Your task to perform on an android device: Empty the shopping cart on ebay. Search for razer nari on ebay, select the first entry, add it to the cart, then select checkout. Image 0: 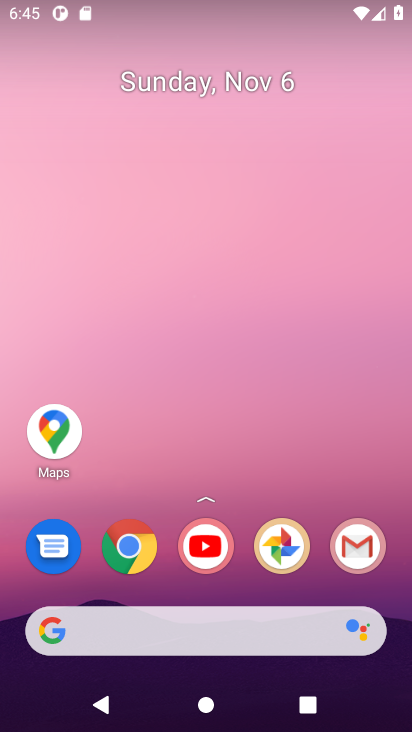
Step 0: click (126, 556)
Your task to perform on an android device: Empty the shopping cart on ebay. Search for razer nari on ebay, select the first entry, add it to the cart, then select checkout. Image 1: 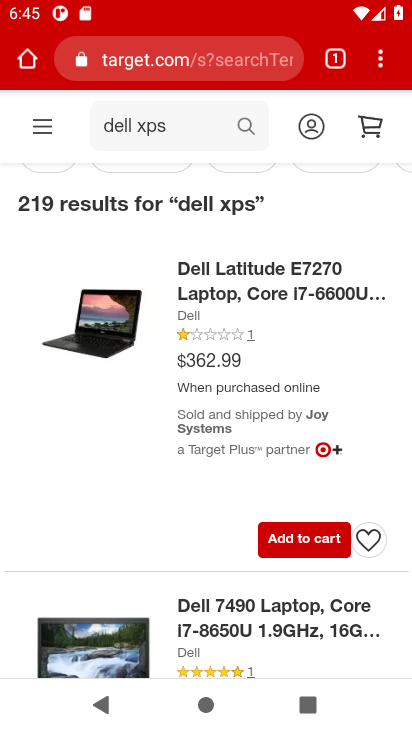
Step 1: click (165, 65)
Your task to perform on an android device: Empty the shopping cart on ebay. Search for razer nari on ebay, select the first entry, add it to the cart, then select checkout. Image 2: 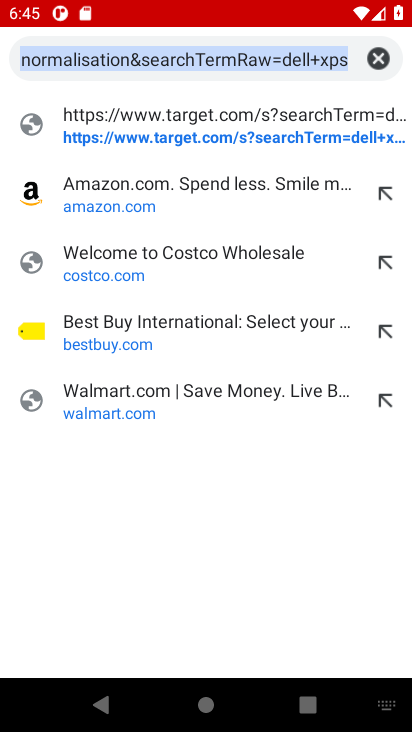
Step 2: type "ebay.com"
Your task to perform on an android device: Empty the shopping cart on ebay. Search for razer nari on ebay, select the first entry, add it to the cart, then select checkout. Image 3: 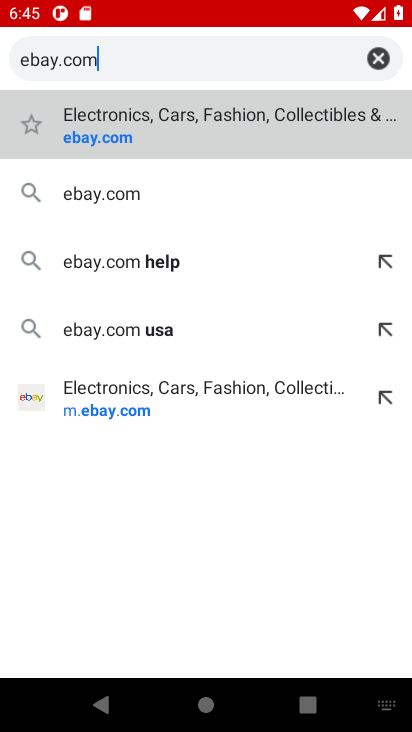
Step 3: click (90, 143)
Your task to perform on an android device: Empty the shopping cart on ebay. Search for razer nari on ebay, select the first entry, add it to the cart, then select checkout. Image 4: 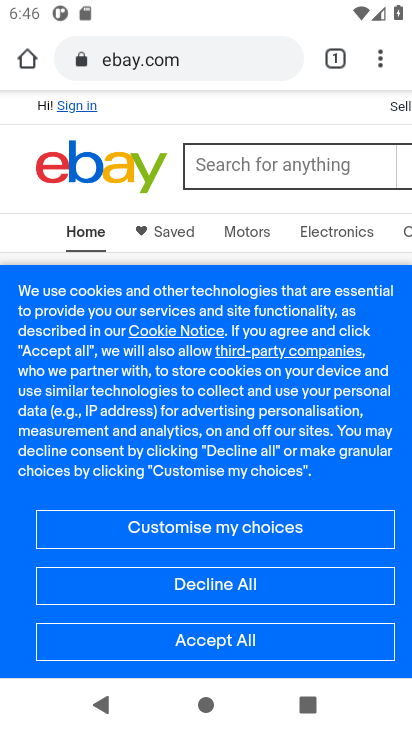
Step 4: drag from (144, 333) to (184, 160)
Your task to perform on an android device: Empty the shopping cart on ebay. Search for razer nari on ebay, select the first entry, add it to the cart, then select checkout. Image 5: 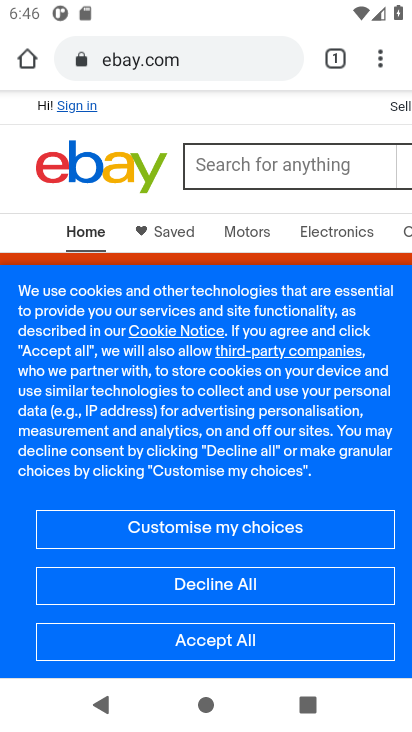
Step 5: click (212, 586)
Your task to perform on an android device: Empty the shopping cart on ebay. Search for razer nari on ebay, select the first entry, add it to the cart, then select checkout. Image 6: 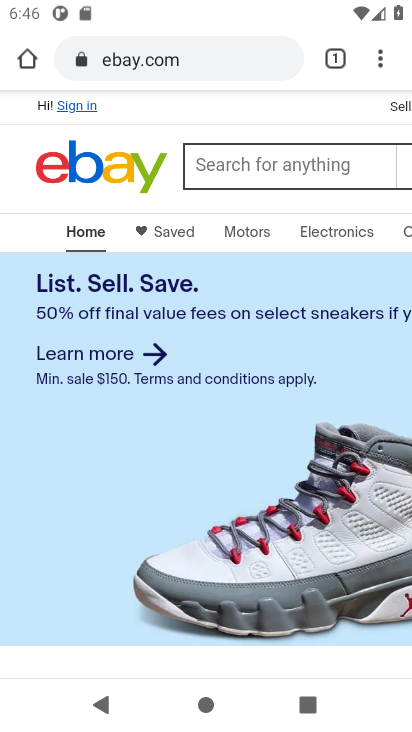
Step 6: drag from (209, 556) to (221, 718)
Your task to perform on an android device: Empty the shopping cart on ebay. Search for razer nari on ebay, select the first entry, add it to the cart, then select checkout. Image 7: 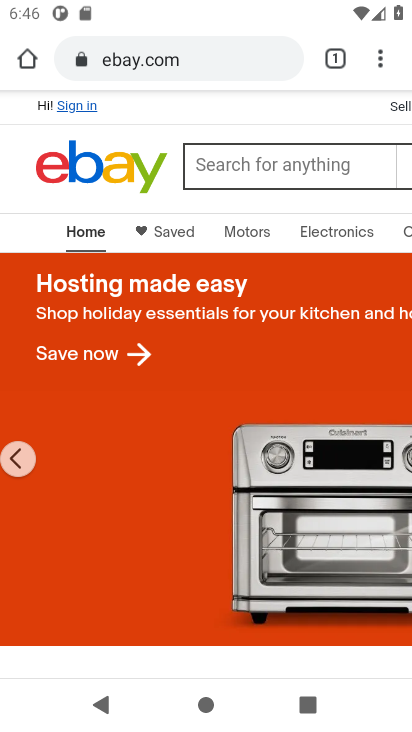
Step 7: press back button
Your task to perform on an android device: Empty the shopping cart on ebay. Search for razer nari on ebay, select the first entry, add it to the cart, then select checkout. Image 8: 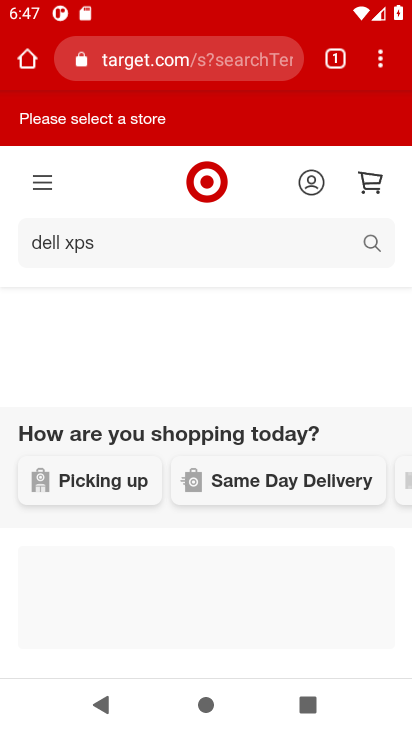
Step 8: click (170, 64)
Your task to perform on an android device: Empty the shopping cart on ebay. Search for razer nari on ebay, select the first entry, add it to the cart, then select checkout. Image 9: 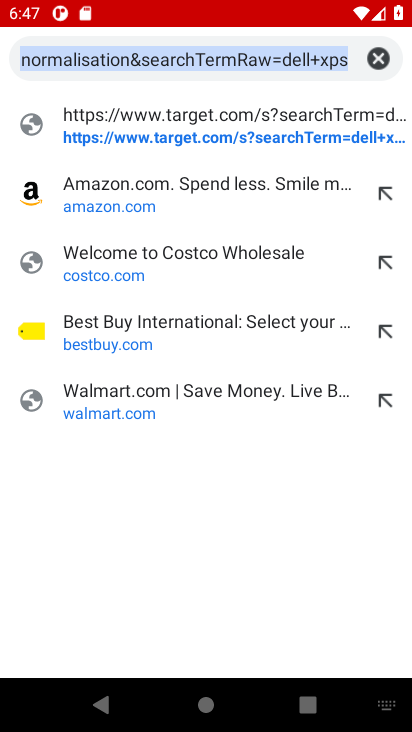
Step 9: type "ebay.com"
Your task to perform on an android device: Empty the shopping cart on ebay. Search for razer nari on ebay, select the first entry, add it to the cart, then select checkout. Image 10: 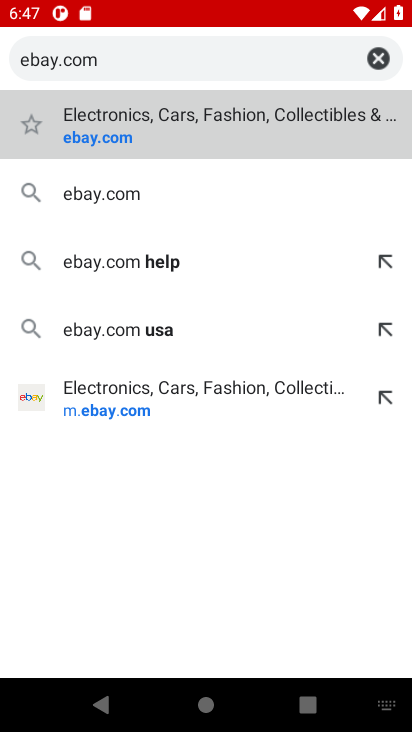
Step 10: click (82, 134)
Your task to perform on an android device: Empty the shopping cart on ebay. Search for razer nari on ebay, select the first entry, add it to the cart, then select checkout. Image 11: 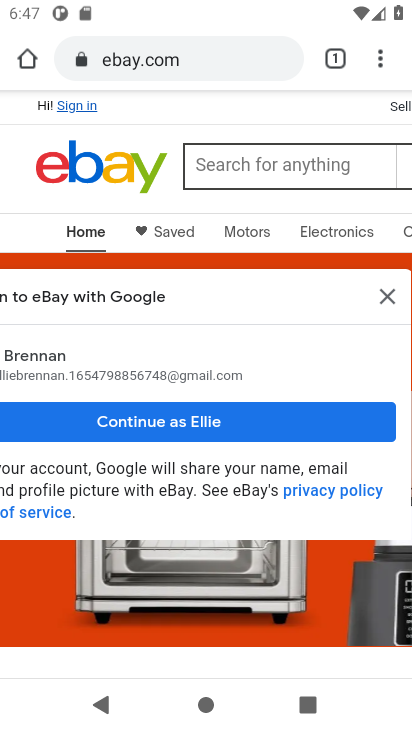
Step 11: click (389, 296)
Your task to perform on an android device: Empty the shopping cart on ebay. Search for razer nari on ebay, select the first entry, add it to the cart, then select checkout. Image 12: 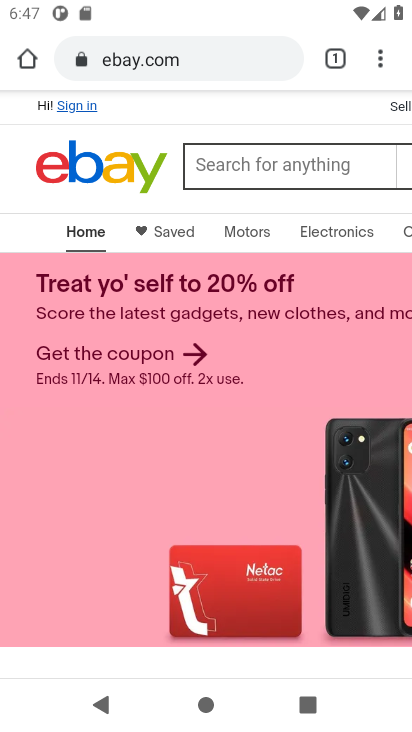
Step 12: task complete